Your task to perform on an android device: turn off airplane mode Image 0: 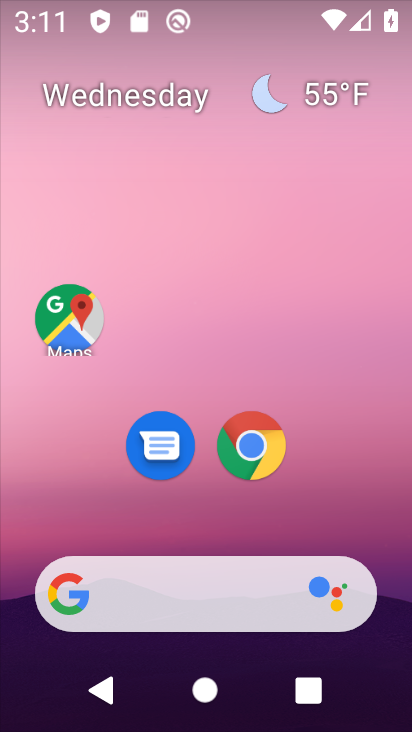
Step 0: drag from (384, 481) to (352, 87)
Your task to perform on an android device: turn off airplane mode Image 1: 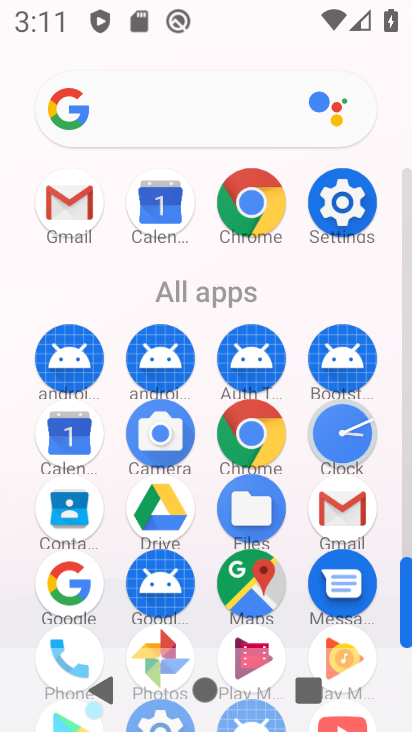
Step 1: click (361, 204)
Your task to perform on an android device: turn off airplane mode Image 2: 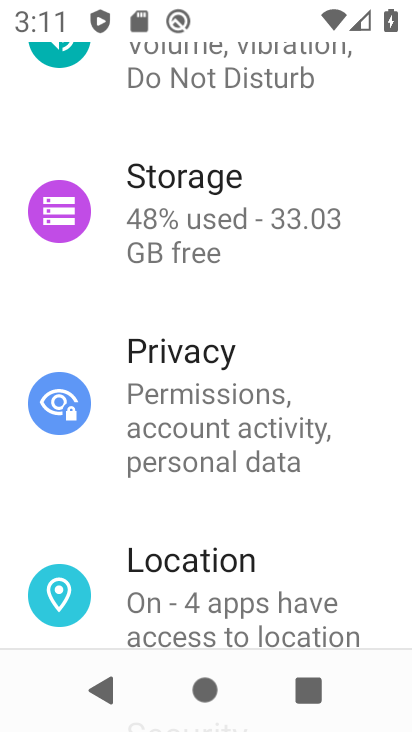
Step 2: click (290, 149)
Your task to perform on an android device: turn off airplane mode Image 3: 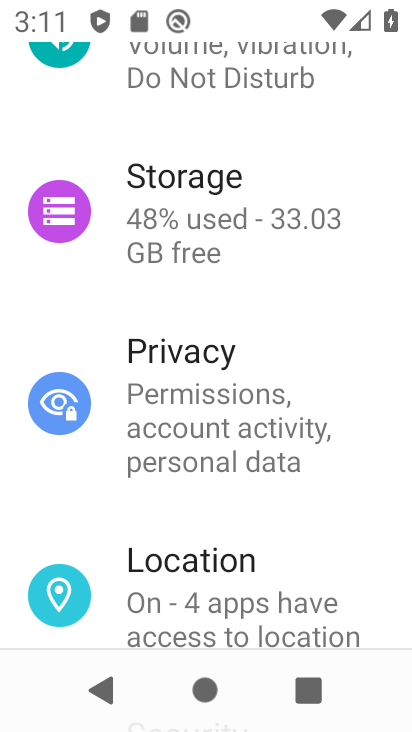
Step 3: drag from (283, 116) to (286, 534)
Your task to perform on an android device: turn off airplane mode Image 4: 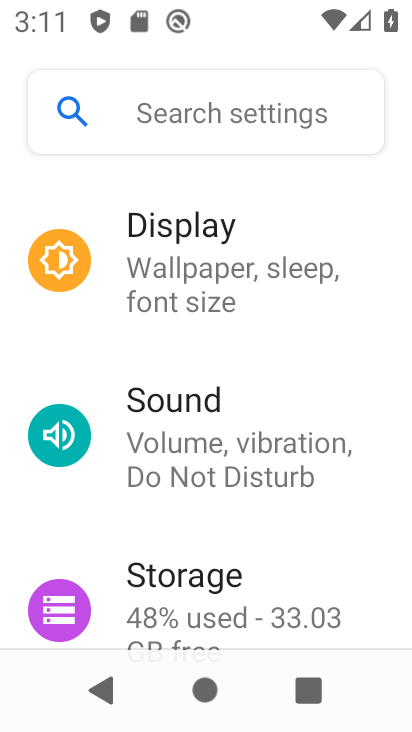
Step 4: drag from (336, 319) to (381, 682)
Your task to perform on an android device: turn off airplane mode Image 5: 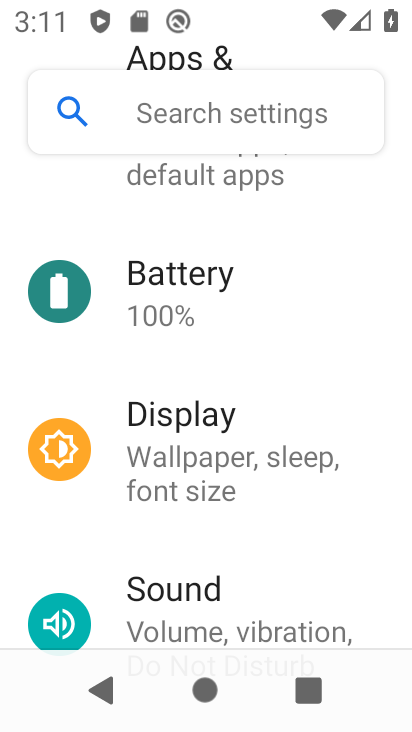
Step 5: drag from (338, 358) to (374, 587)
Your task to perform on an android device: turn off airplane mode Image 6: 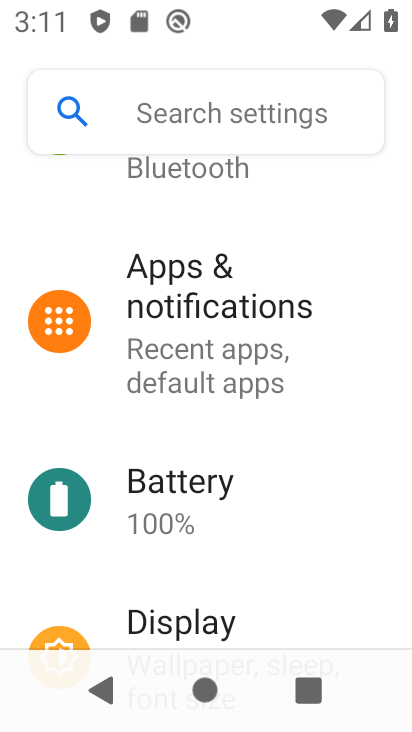
Step 6: drag from (347, 291) to (371, 403)
Your task to perform on an android device: turn off airplane mode Image 7: 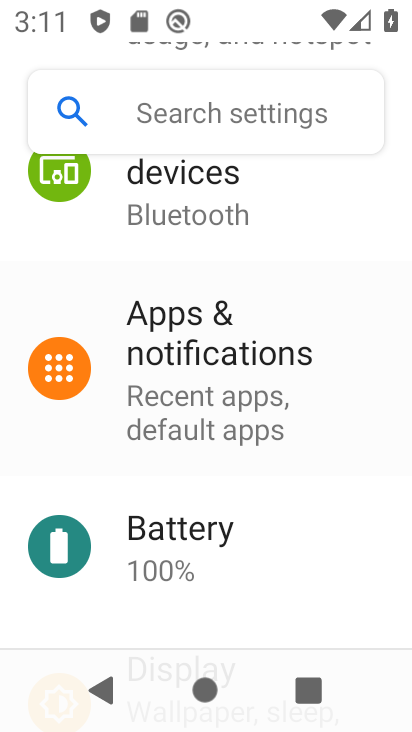
Step 7: click (373, 424)
Your task to perform on an android device: turn off airplane mode Image 8: 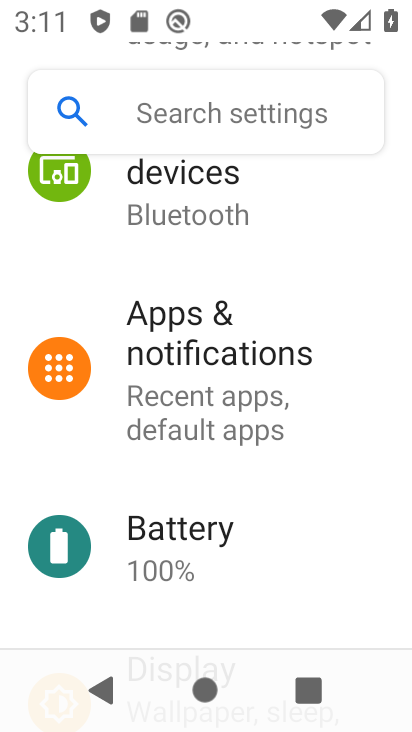
Step 8: drag from (332, 259) to (378, 447)
Your task to perform on an android device: turn off airplane mode Image 9: 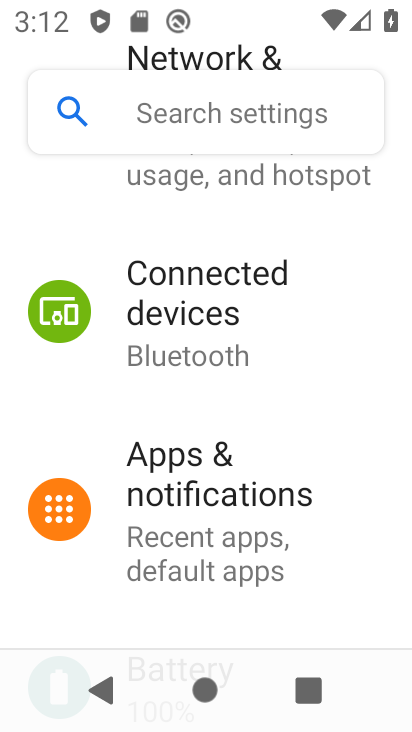
Step 9: drag from (343, 196) to (369, 489)
Your task to perform on an android device: turn off airplane mode Image 10: 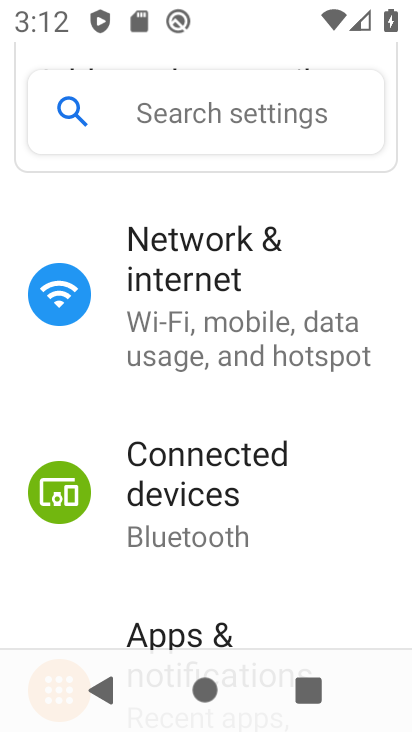
Step 10: click (284, 289)
Your task to perform on an android device: turn off airplane mode Image 11: 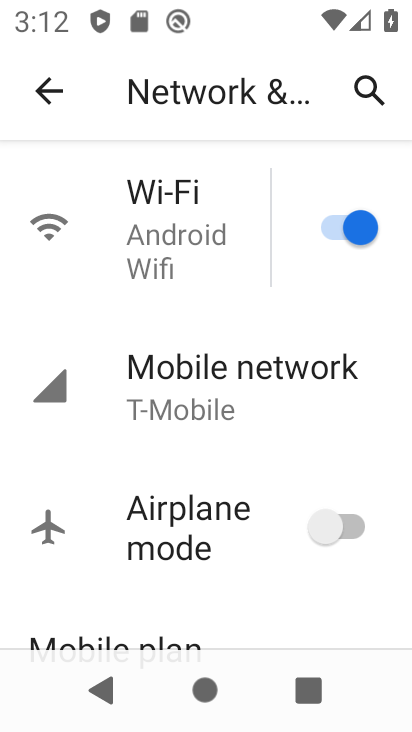
Step 11: task complete